Your task to perform on an android device: Go to display settings Image 0: 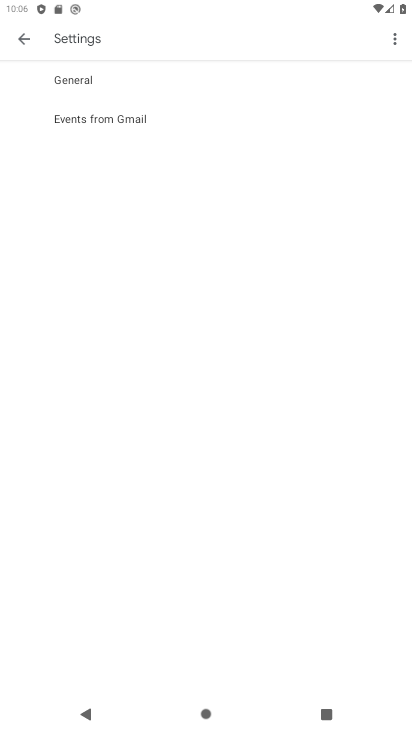
Step 0: press home button
Your task to perform on an android device: Go to display settings Image 1: 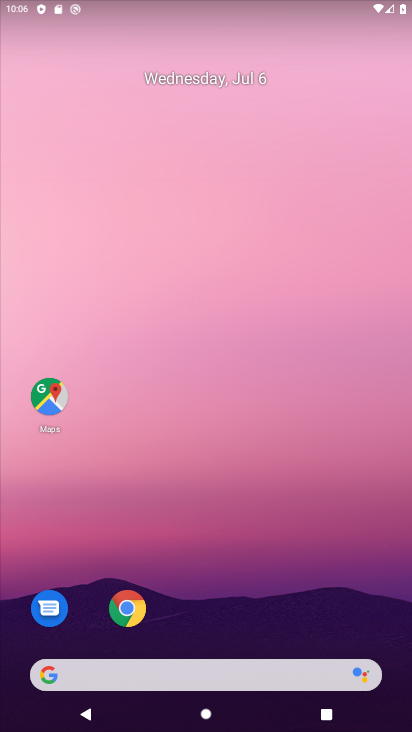
Step 1: drag from (188, 650) to (127, 70)
Your task to perform on an android device: Go to display settings Image 2: 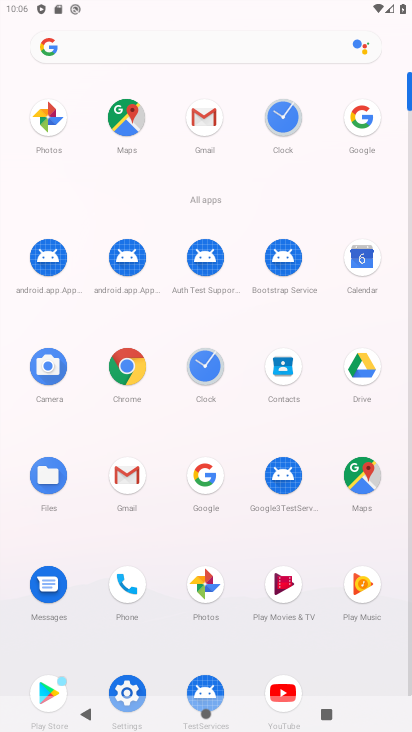
Step 2: click (123, 688)
Your task to perform on an android device: Go to display settings Image 3: 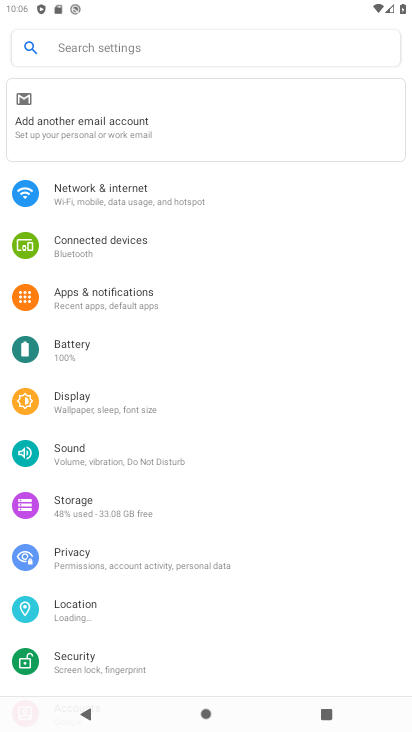
Step 3: click (63, 389)
Your task to perform on an android device: Go to display settings Image 4: 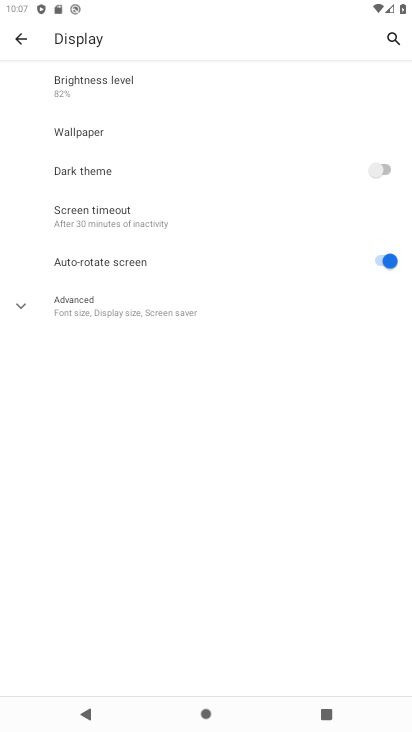
Step 4: click (95, 307)
Your task to perform on an android device: Go to display settings Image 5: 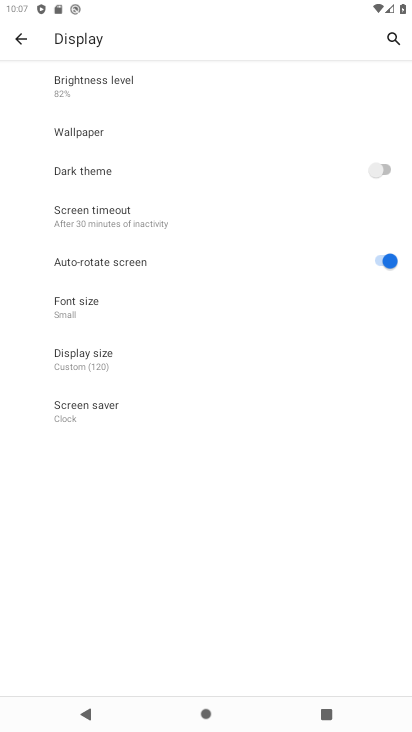
Step 5: task complete